Your task to perform on an android device: Open my contact list Image 0: 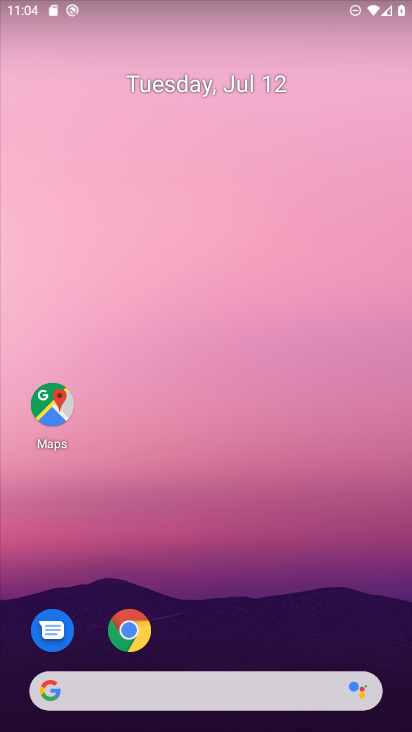
Step 0: drag from (316, 404) to (293, 30)
Your task to perform on an android device: Open my contact list Image 1: 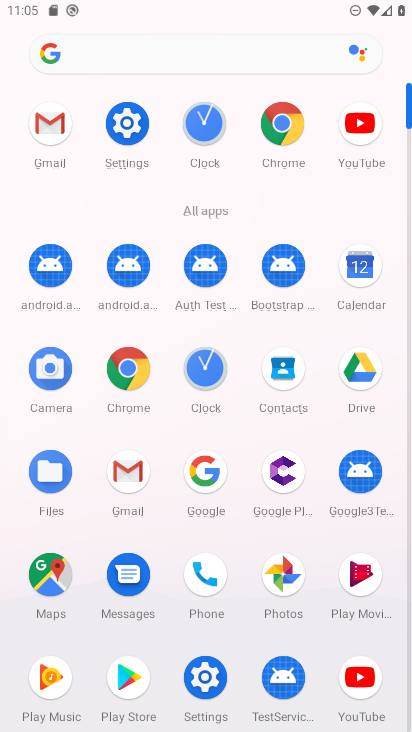
Step 1: click (284, 369)
Your task to perform on an android device: Open my contact list Image 2: 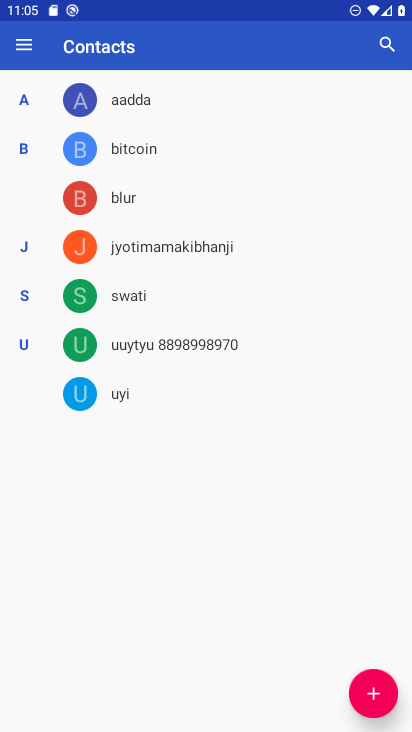
Step 2: task complete